Your task to perform on an android device: add a label to a message in the gmail app Image 0: 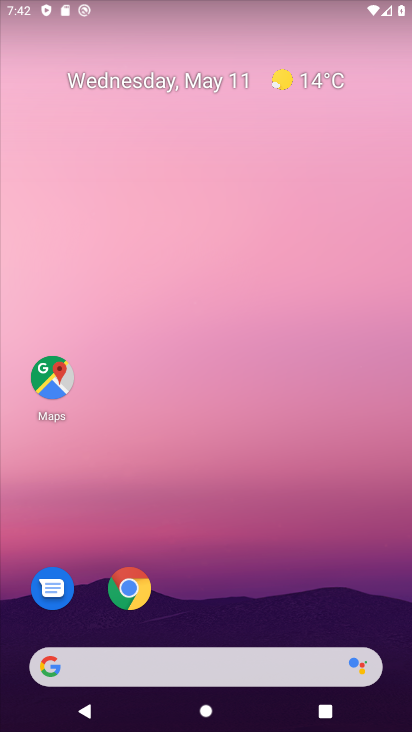
Step 0: drag from (236, 709) to (320, 143)
Your task to perform on an android device: add a label to a message in the gmail app Image 1: 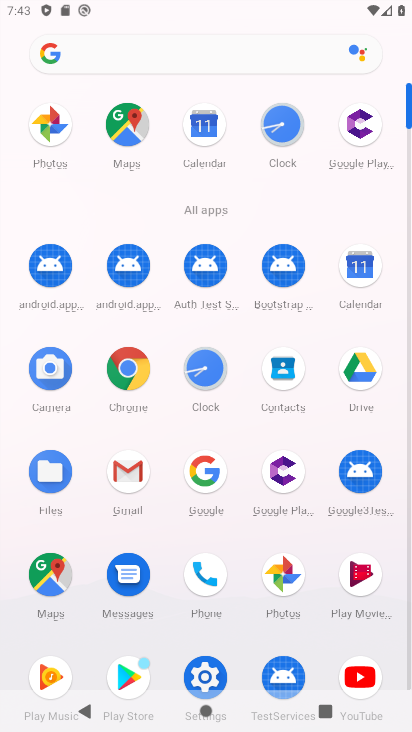
Step 1: click (128, 476)
Your task to perform on an android device: add a label to a message in the gmail app Image 2: 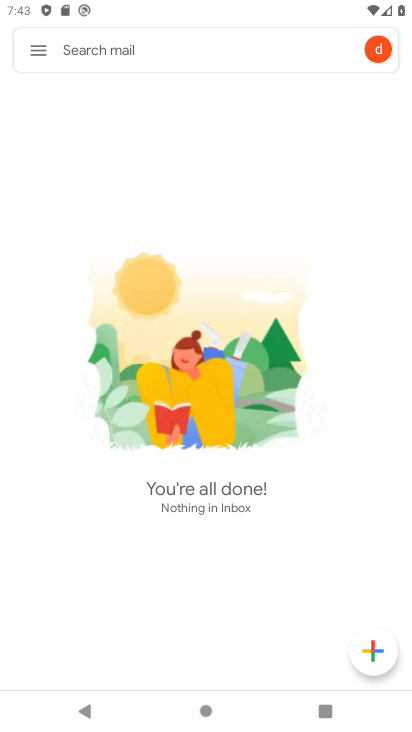
Step 2: task complete